Your task to perform on an android device: set default search engine in the chrome app Image 0: 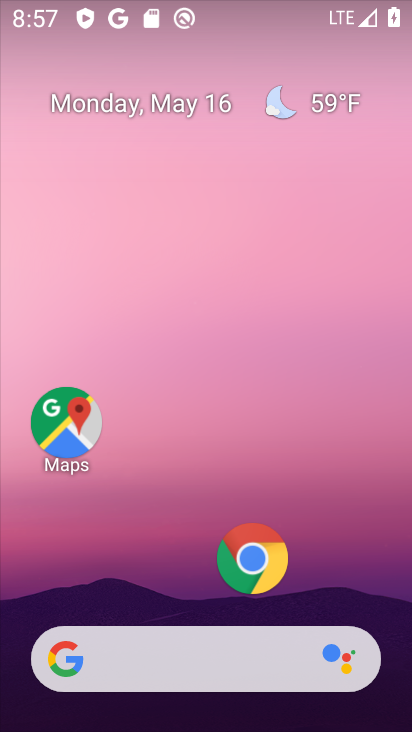
Step 0: click (257, 549)
Your task to perform on an android device: set default search engine in the chrome app Image 1: 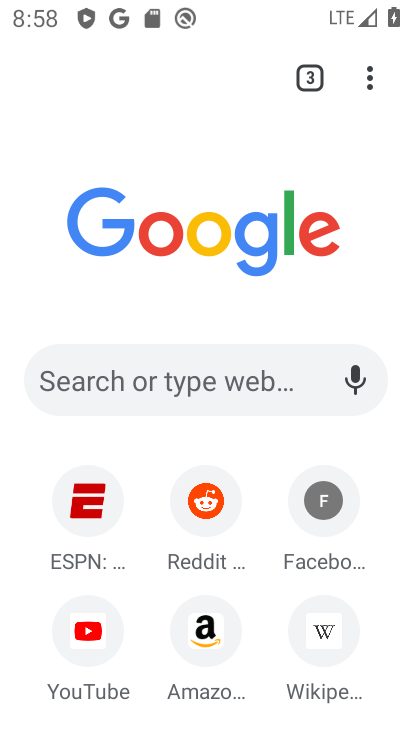
Step 1: drag from (369, 73) to (101, 606)
Your task to perform on an android device: set default search engine in the chrome app Image 2: 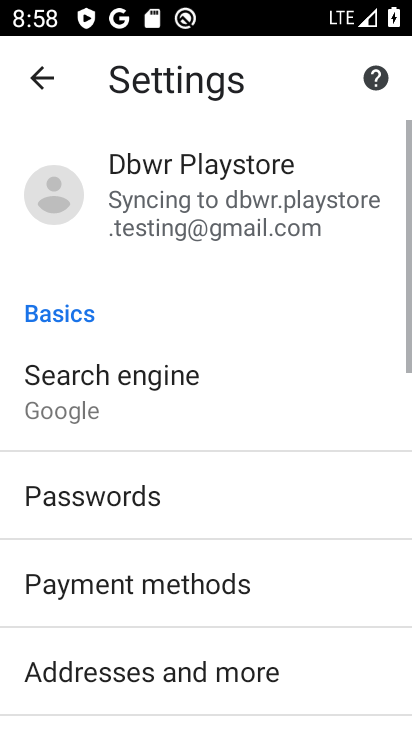
Step 2: click (119, 390)
Your task to perform on an android device: set default search engine in the chrome app Image 3: 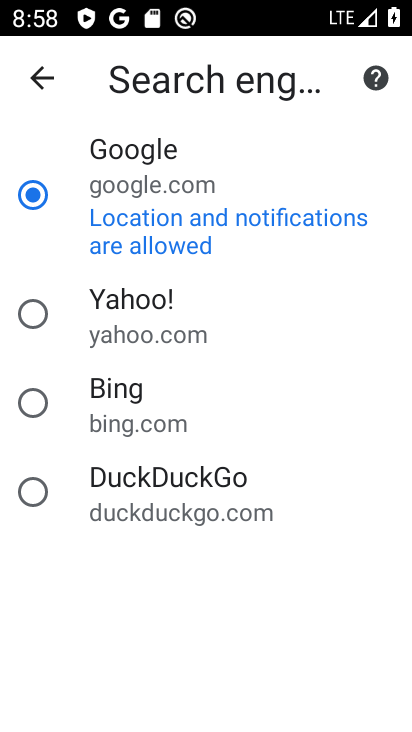
Step 3: click (14, 298)
Your task to perform on an android device: set default search engine in the chrome app Image 4: 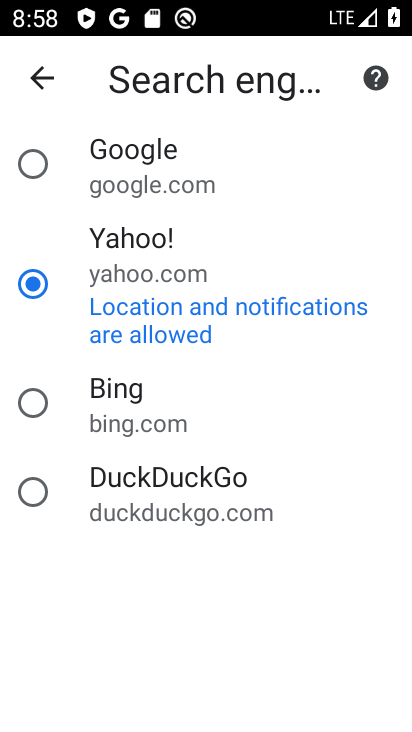
Step 4: task complete